Your task to perform on an android device: turn off location Image 0: 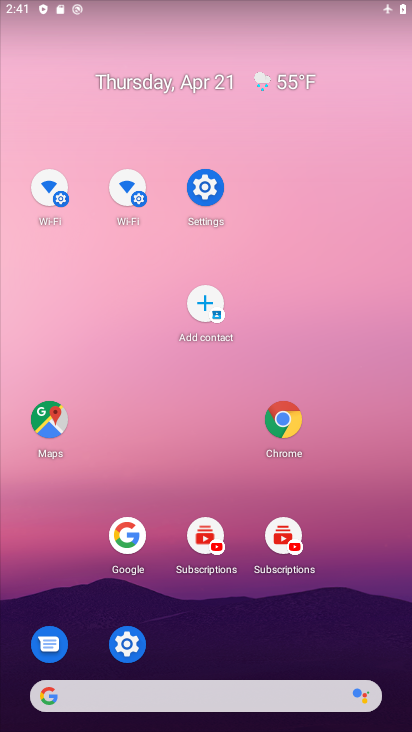
Step 0: drag from (320, 599) to (231, 147)
Your task to perform on an android device: turn off location Image 1: 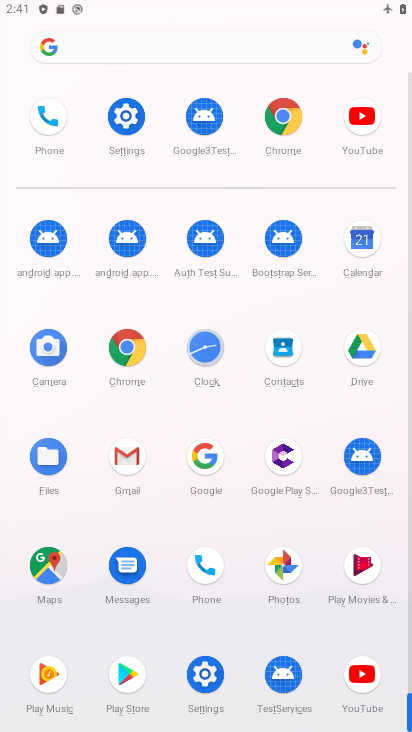
Step 1: click (124, 115)
Your task to perform on an android device: turn off location Image 2: 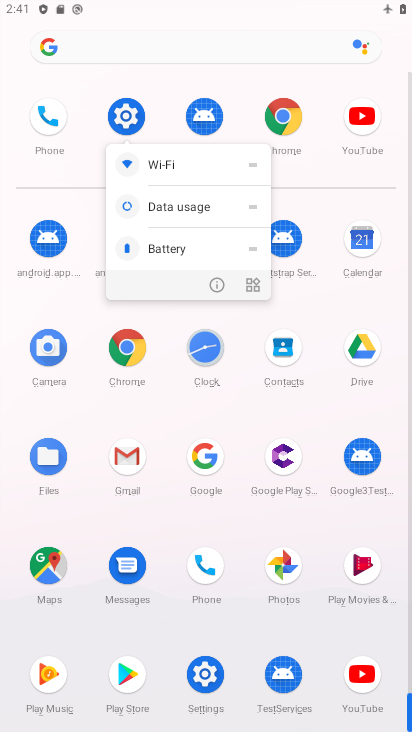
Step 2: click (122, 125)
Your task to perform on an android device: turn off location Image 3: 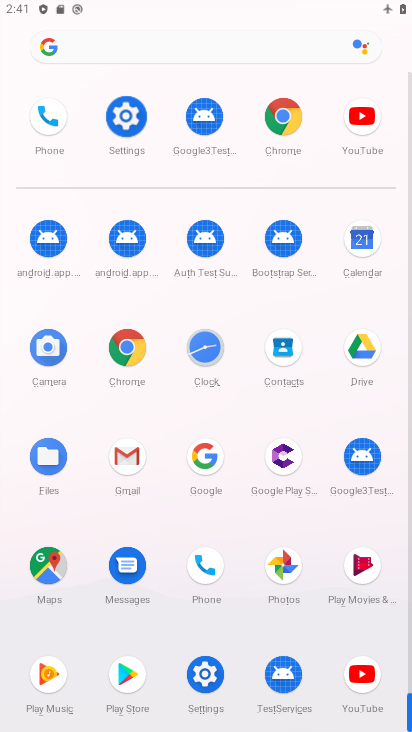
Step 3: click (122, 124)
Your task to perform on an android device: turn off location Image 4: 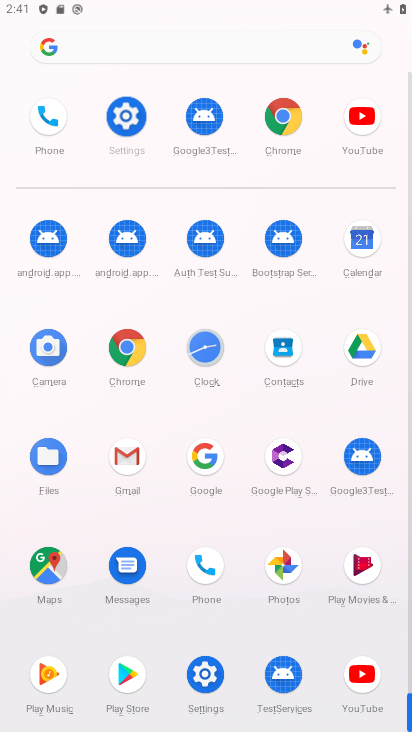
Step 4: click (122, 124)
Your task to perform on an android device: turn off location Image 5: 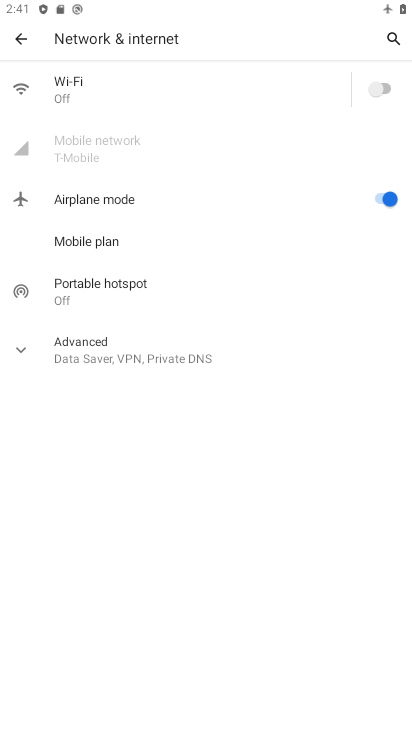
Step 5: click (17, 35)
Your task to perform on an android device: turn off location Image 6: 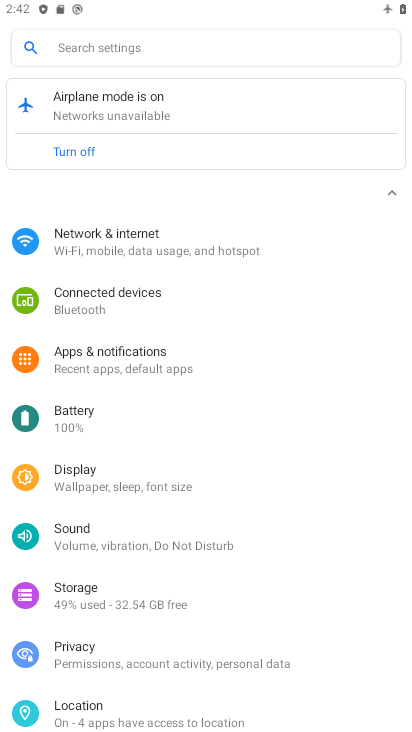
Step 6: drag from (205, 515) to (198, 271)
Your task to perform on an android device: turn off location Image 7: 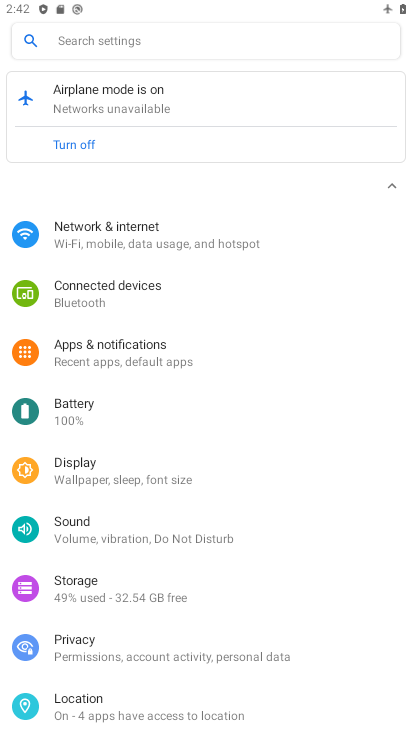
Step 7: drag from (252, 522) to (229, 251)
Your task to perform on an android device: turn off location Image 8: 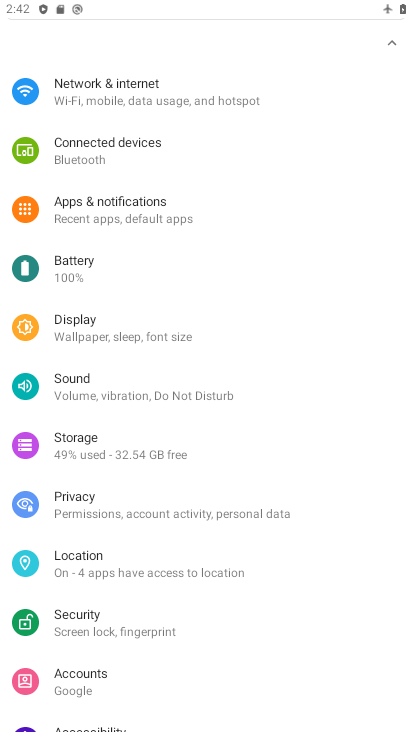
Step 8: click (108, 572)
Your task to perform on an android device: turn off location Image 9: 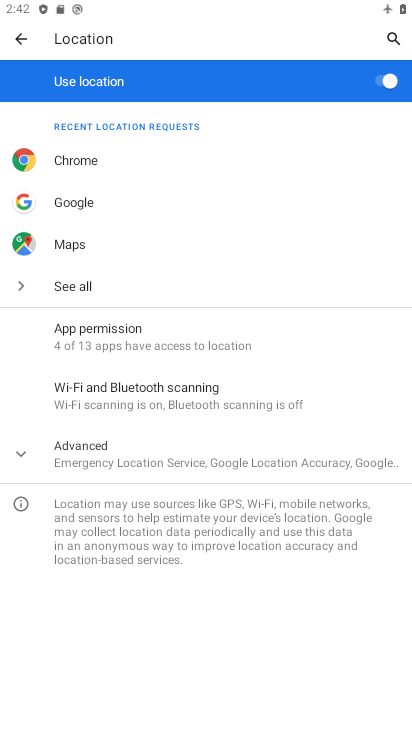
Step 9: click (389, 81)
Your task to perform on an android device: turn off location Image 10: 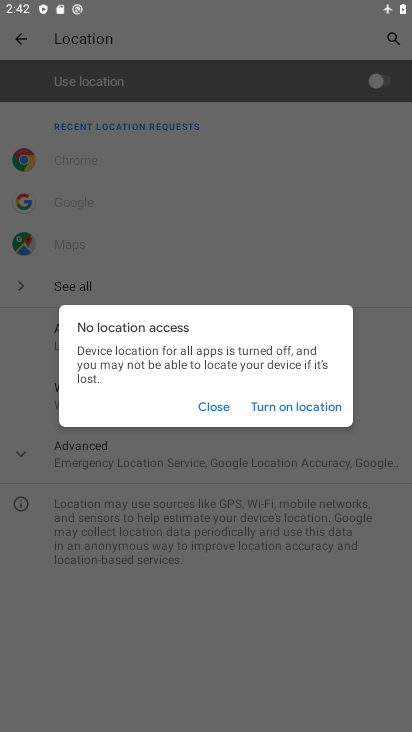
Step 10: click (296, 410)
Your task to perform on an android device: turn off location Image 11: 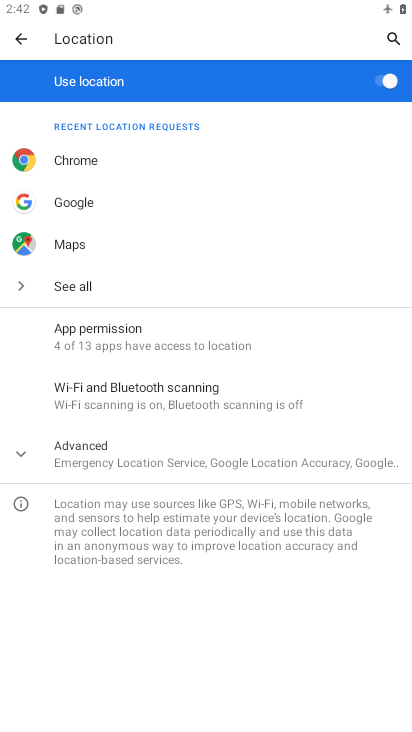
Step 11: task complete